Your task to perform on an android device: Go to ESPN.com Image 0: 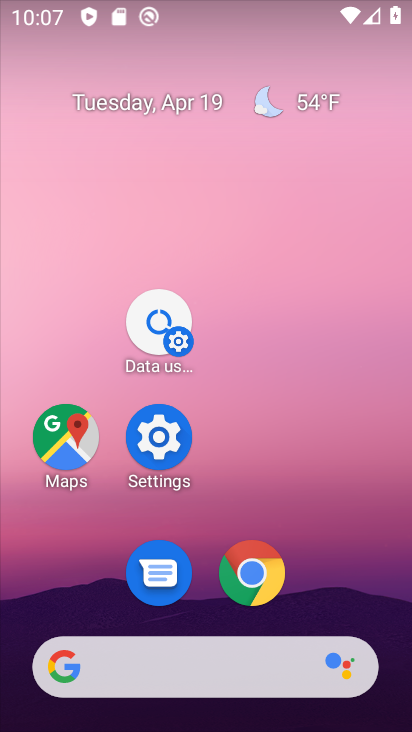
Step 0: click (258, 567)
Your task to perform on an android device: Go to ESPN.com Image 1: 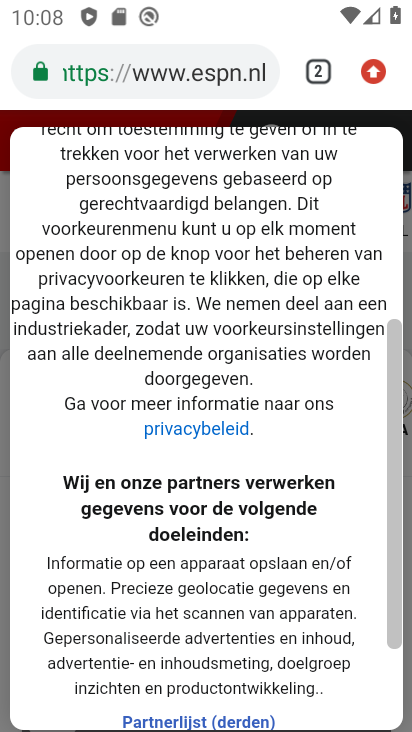
Step 1: task complete